Your task to perform on an android device: toggle translation in the chrome app Image 0: 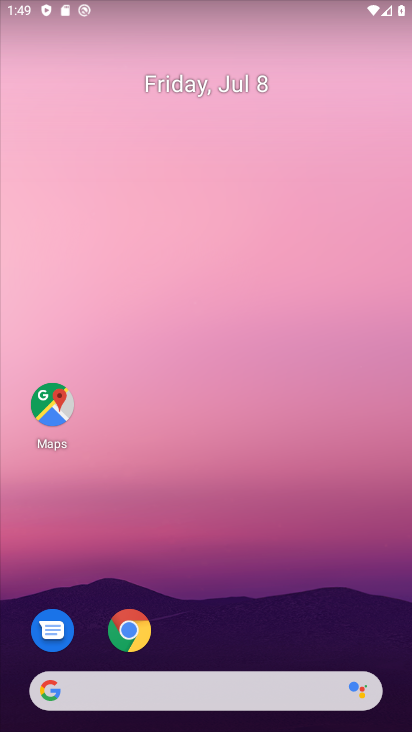
Step 0: drag from (205, 641) to (134, 77)
Your task to perform on an android device: toggle translation in the chrome app Image 1: 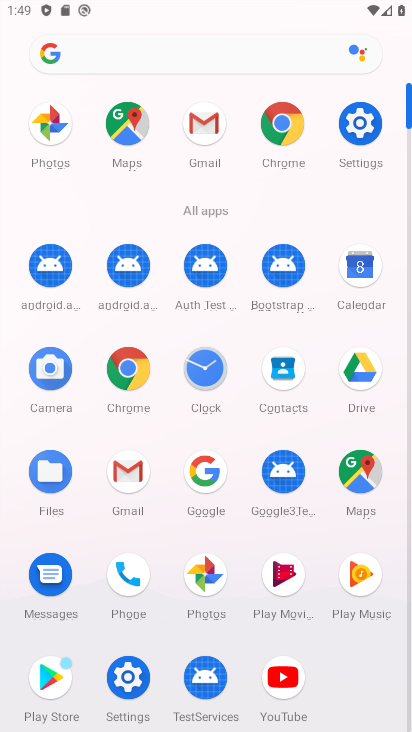
Step 1: click (275, 122)
Your task to perform on an android device: toggle translation in the chrome app Image 2: 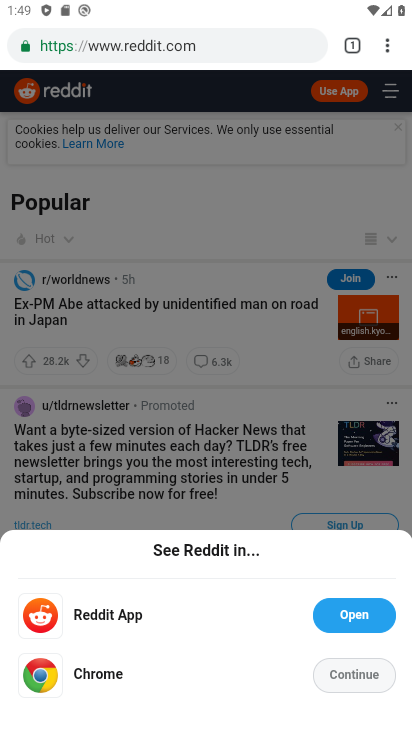
Step 2: drag from (389, 42) to (233, 545)
Your task to perform on an android device: toggle translation in the chrome app Image 3: 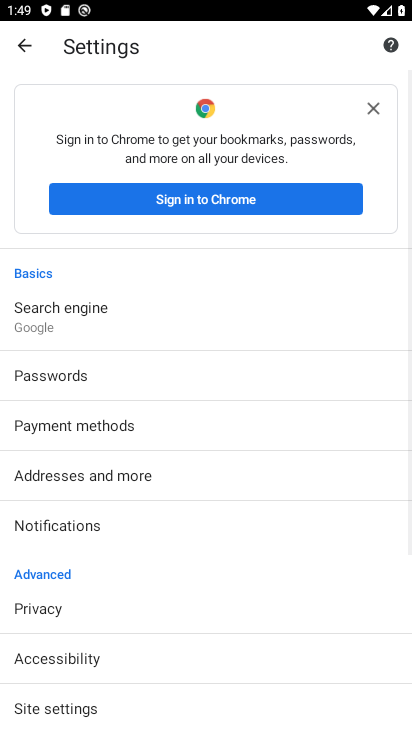
Step 3: drag from (169, 633) to (180, 240)
Your task to perform on an android device: toggle translation in the chrome app Image 4: 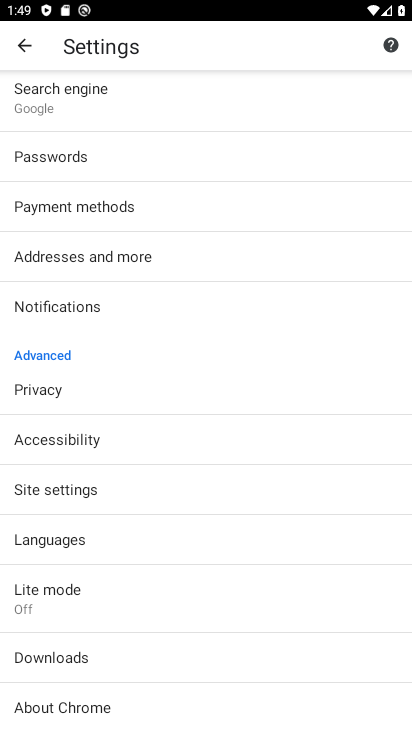
Step 4: click (59, 532)
Your task to perform on an android device: toggle translation in the chrome app Image 5: 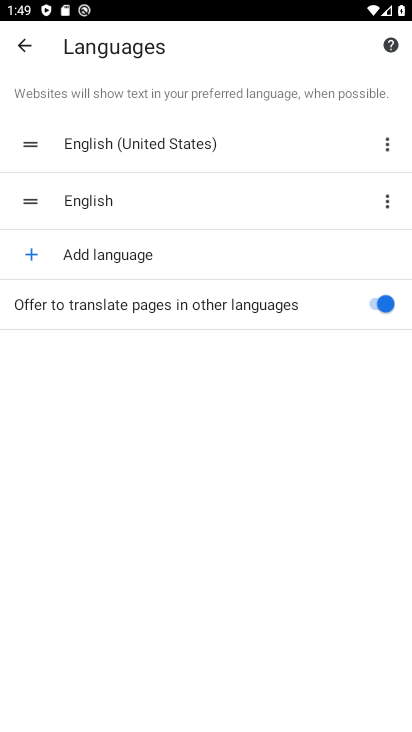
Step 5: click (375, 298)
Your task to perform on an android device: toggle translation in the chrome app Image 6: 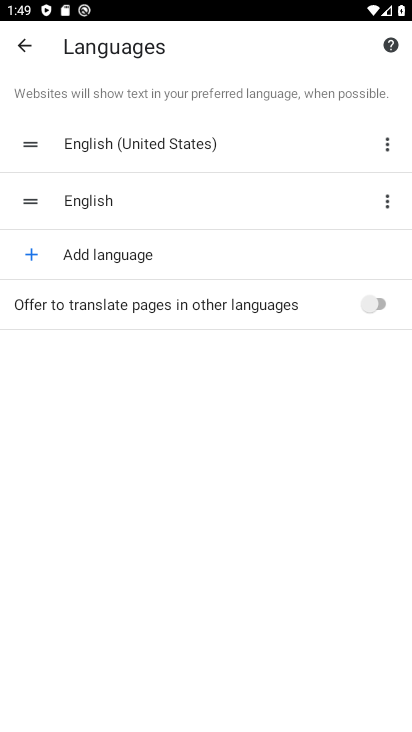
Step 6: task complete